Your task to perform on an android device: Add "alienware aurora" to the cart on walmart, then select checkout. Image 0: 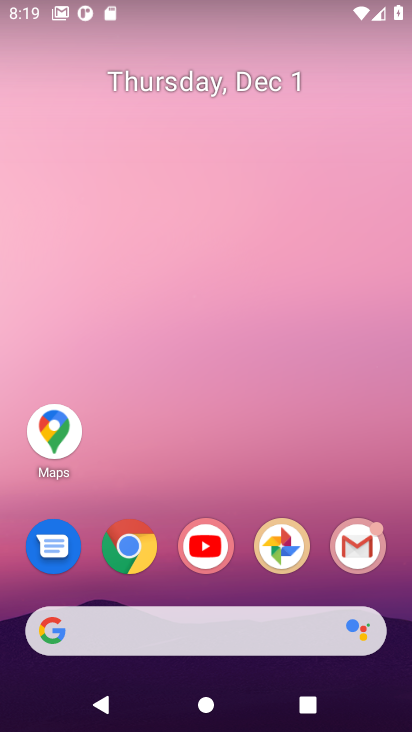
Step 0: click (130, 549)
Your task to perform on an android device: Add "alienware aurora" to the cart on walmart, then select checkout. Image 1: 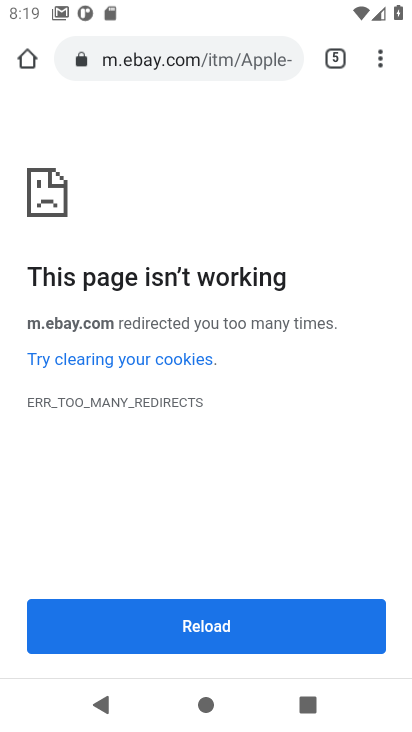
Step 1: click (194, 58)
Your task to perform on an android device: Add "alienware aurora" to the cart on walmart, then select checkout. Image 2: 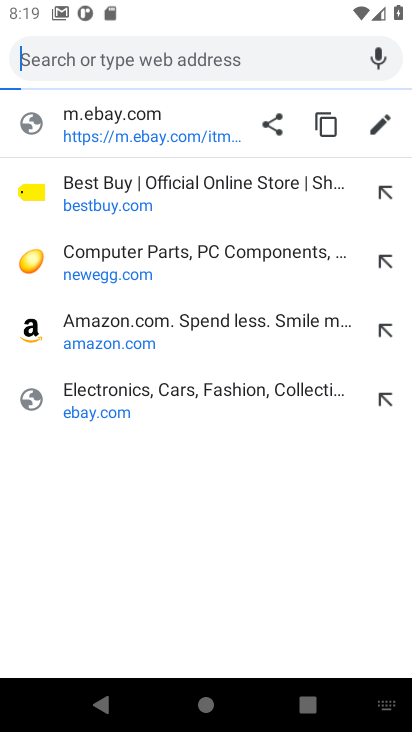
Step 2: type "walmart.com"
Your task to perform on an android device: Add "alienware aurora" to the cart on walmart, then select checkout. Image 3: 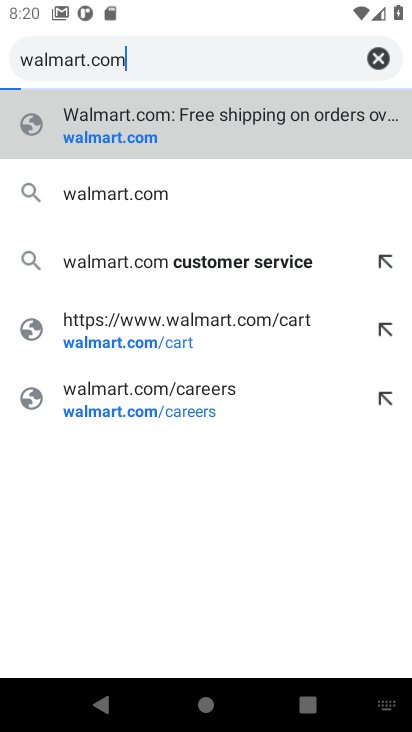
Step 3: click (71, 138)
Your task to perform on an android device: Add "alienware aurora" to the cart on walmart, then select checkout. Image 4: 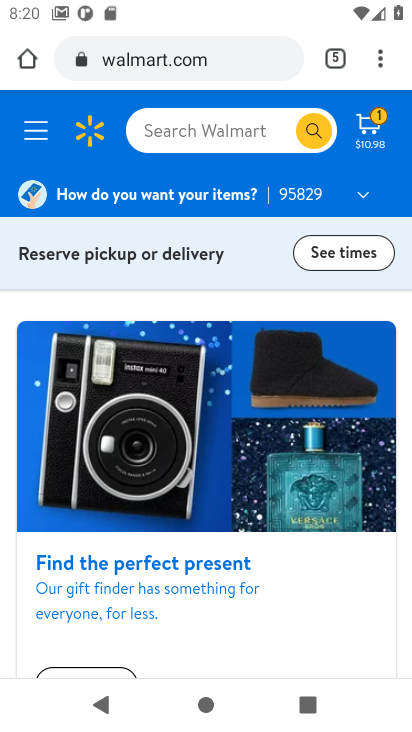
Step 4: click (201, 137)
Your task to perform on an android device: Add "alienware aurora" to the cart on walmart, then select checkout. Image 5: 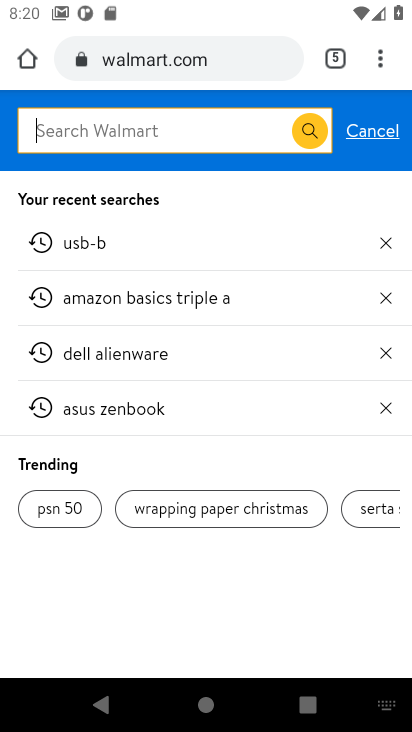
Step 5: type "alienware aurora"
Your task to perform on an android device: Add "alienware aurora" to the cart on walmart, then select checkout. Image 6: 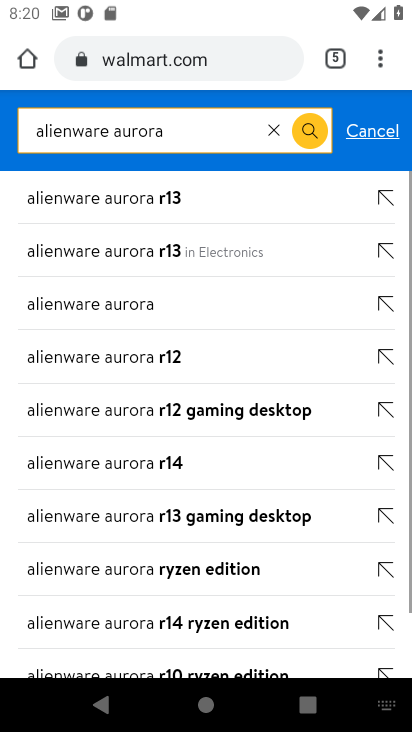
Step 6: click (86, 313)
Your task to perform on an android device: Add "alienware aurora" to the cart on walmart, then select checkout. Image 7: 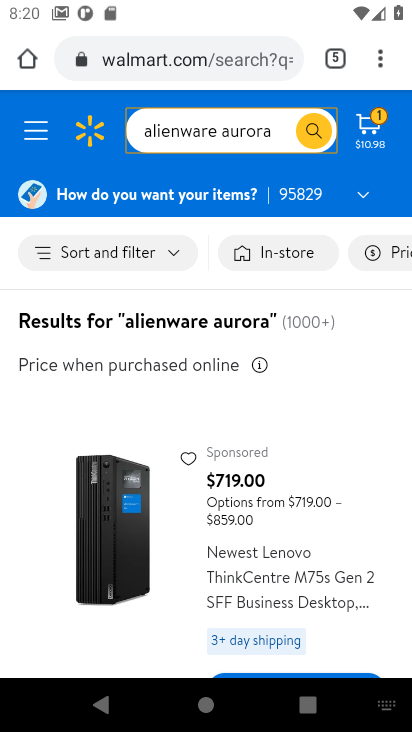
Step 7: drag from (203, 505) to (203, 277)
Your task to perform on an android device: Add "alienware aurora" to the cart on walmart, then select checkout. Image 8: 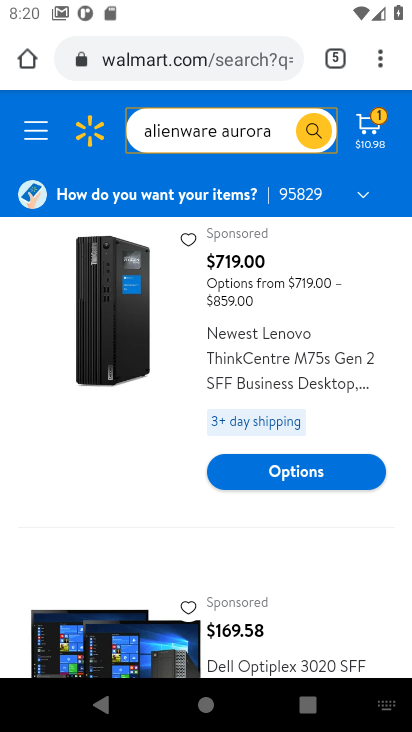
Step 8: drag from (206, 544) to (196, 323)
Your task to perform on an android device: Add "alienware aurora" to the cart on walmart, then select checkout. Image 9: 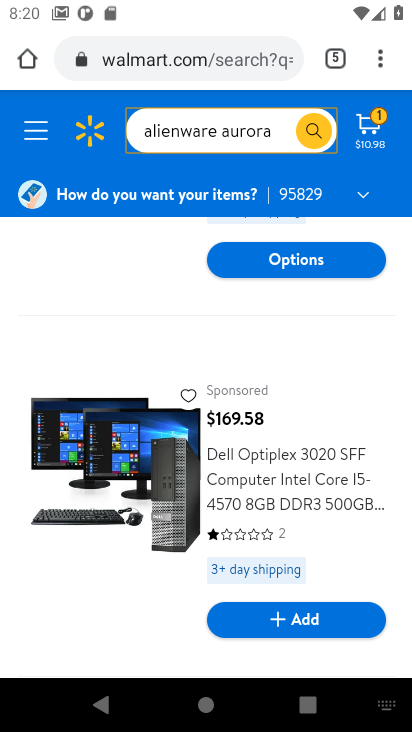
Step 9: drag from (185, 539) to (171, 338)
Your task to perform on an android device: Add "alienware aurora" to the cart on walmart, then select checkout. Image 10: 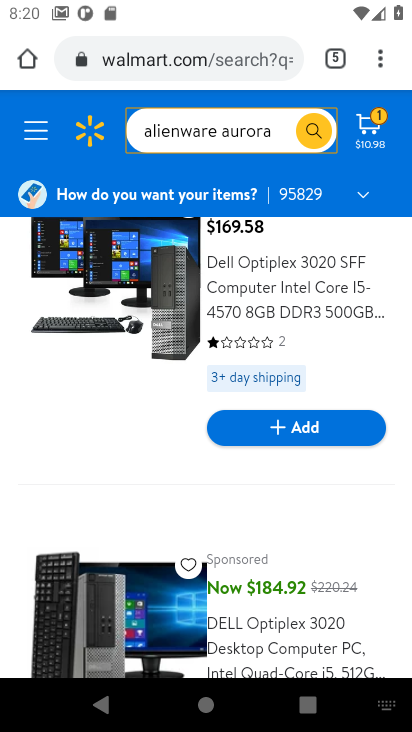
Step 10: drag from (174, 551) to (161, 326)
Your task to perform on an android device: Add "alienware aurora" to the cart on walmart, then select checkout. Image 11: 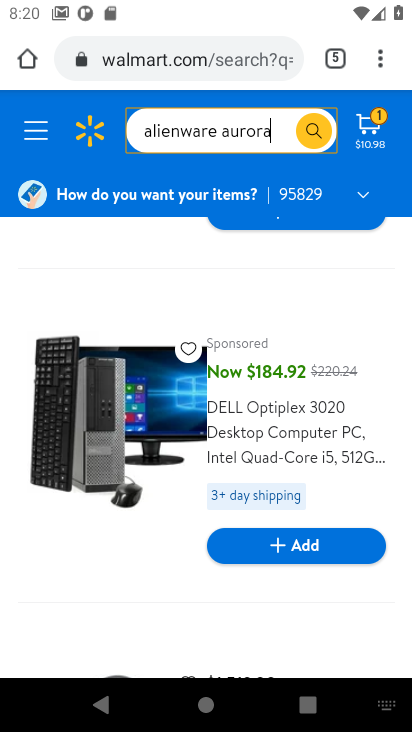
Step 11: drag from (155, 520) to (152, 254)
Your task to perform on an android device: Add "alienware aurora" to the cart on walmart, then select checkout. Image 12: 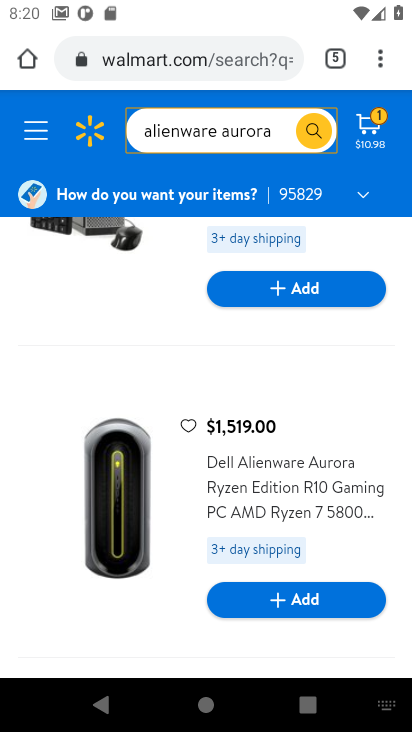
Step 12: drag from (174, 510) to (163, 336)
Your task to perform on an android device: Add "alienware aurora" to the cart on walmart, then select checkout. Image 13: 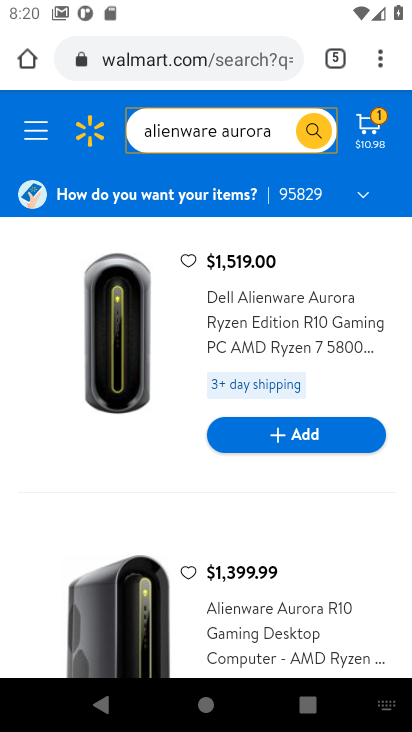
Step 13: click (303, 328)
Your task to perform on an android device: Add "alienware aurora" to the cart on walmart, then select checkout. Image 14: 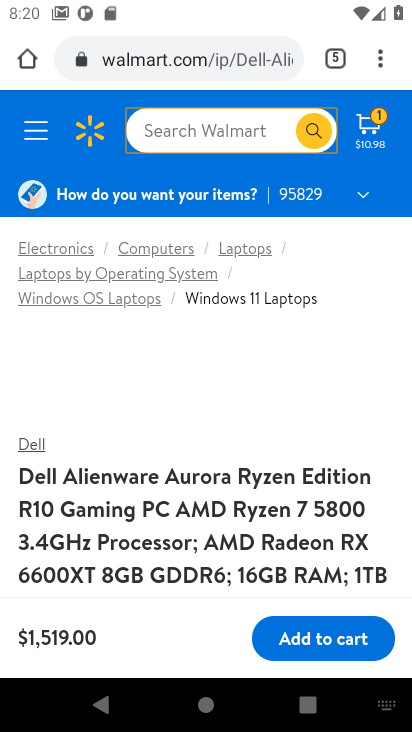
Step 14: click (353, 639)
Your task to perform on an android device: Add "alienware aurora" to the cart on walmart, then select checkout. Image 15: 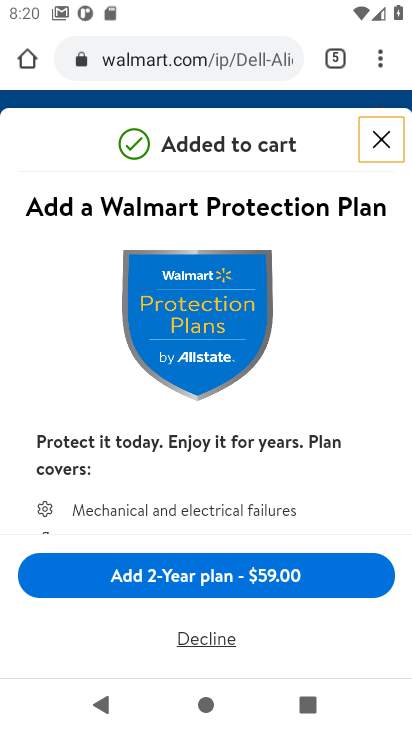
Step 15: click (381, 144)
Your task to perform on an android device: Add "alienware aurora" to the cart on walmart, then select checkout. Image 16: 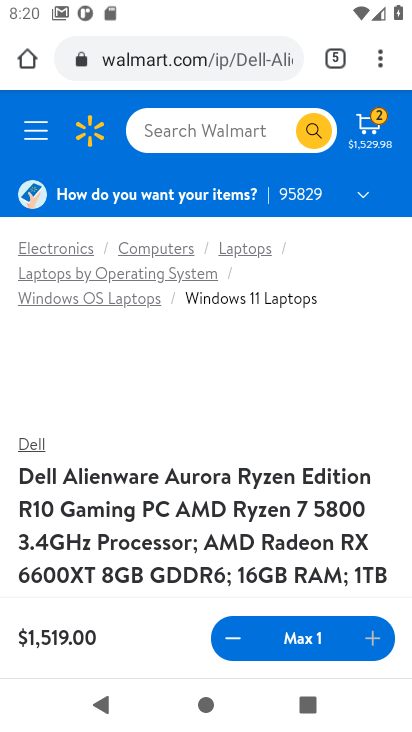
Step 16: click (381, 139)
Your task to perform on an android device: Add "alienware aurora" to the cart on walmart, then select checkout. Image 17: 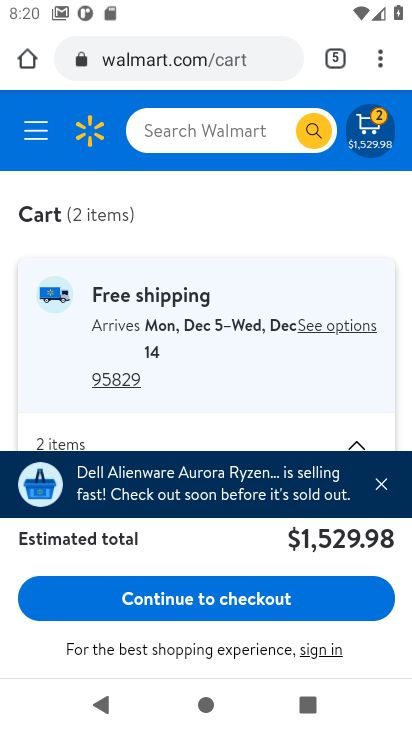
Step 17: click (201, 600)
Your task to perform on an android device: Add "alienware aurora" to the cart on walmart, then select checkout. Image 18: 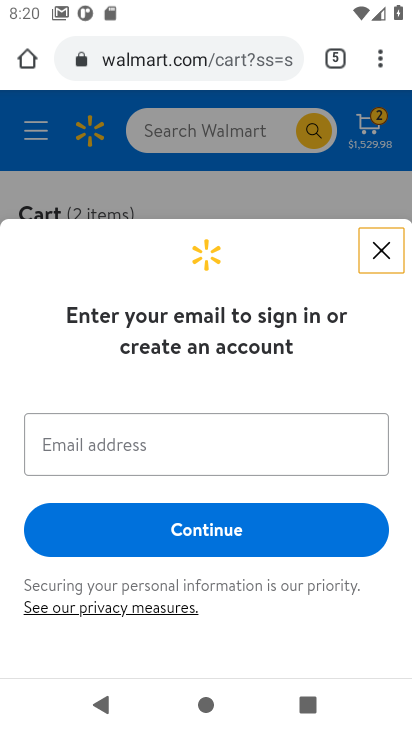
Step 18: task complete